Your task to perform on an android device: turn on priority inbox in the gmail app Image 0: 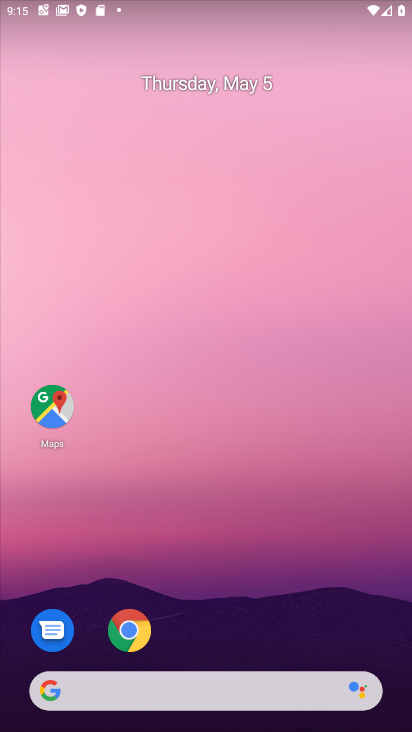
Step 0: drag from (171, 569) to (55, 96)
Your task to perform on an android device: turn on priority inbox in the gmail app Image 1: 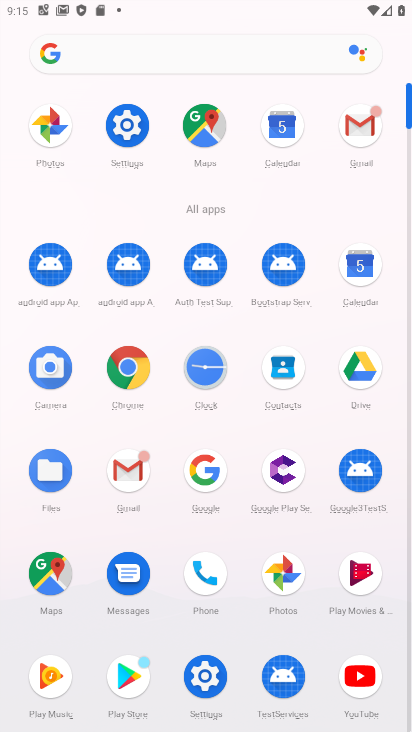
Step 1: click (366, 122)
Your task to perform on an android device: turn on priority inbox in the gmail app Image 2: 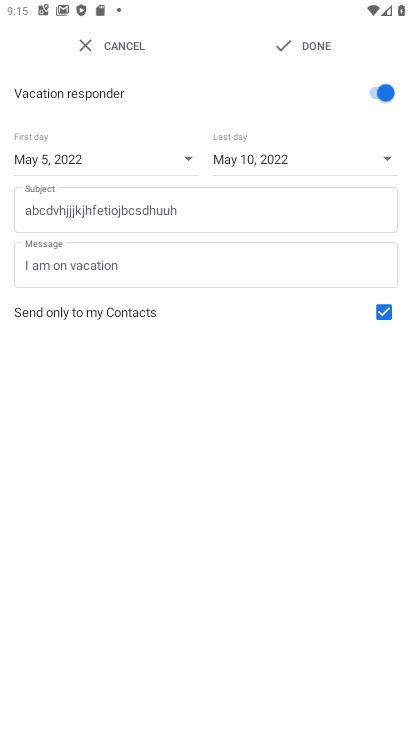
Step 2: press back button
Your task to perform on an android device: turn on priority inbox in the gmail app Image 3: 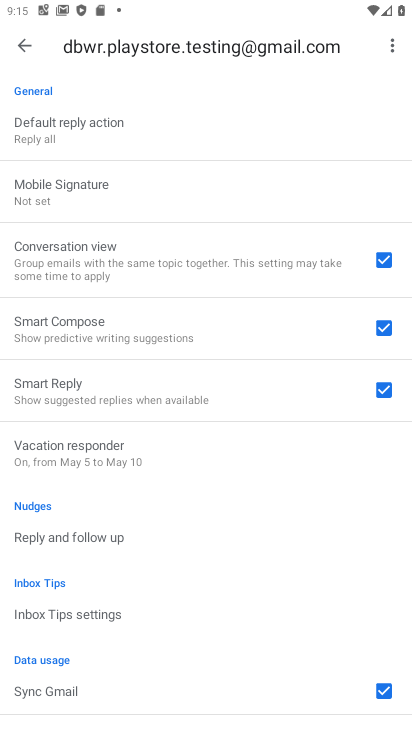
Step 3: drag from (151, 146) to (165, 572)
Your task to perform on an android device: turn on priority inbox in the gmail app Image 4: 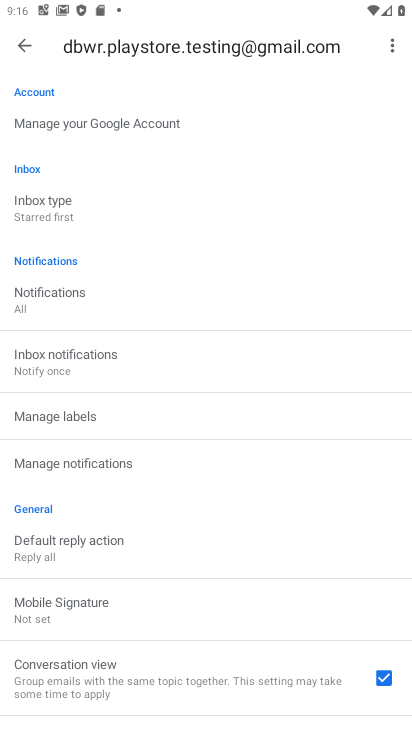
Step 4: click (37, 211)
Your task to perform on an android device: turn on priority inbox in the gmail app Image 5: 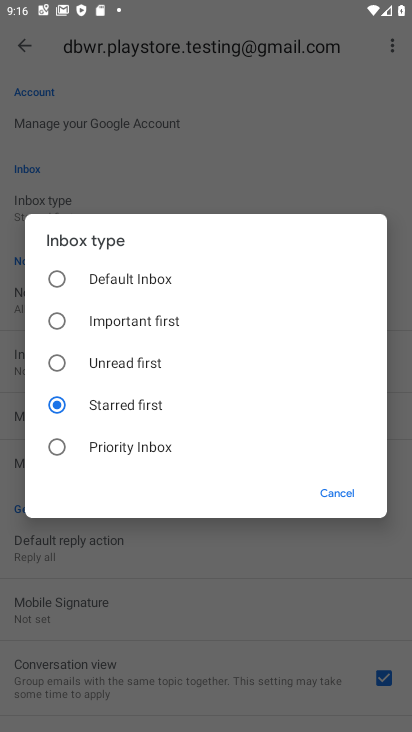
Step 5: click (54, 450)
Your task to perform on an android device: turn on priority inbox in the gmail app Image 6: 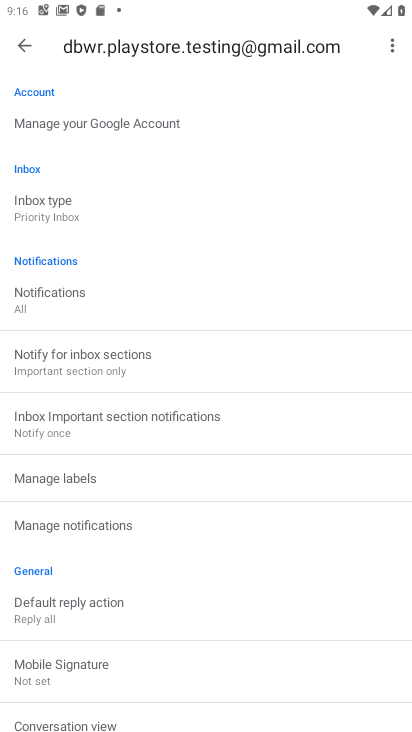
Step 6: task complete